Your task to perform on an android device: Search for hotels in London Image 0: 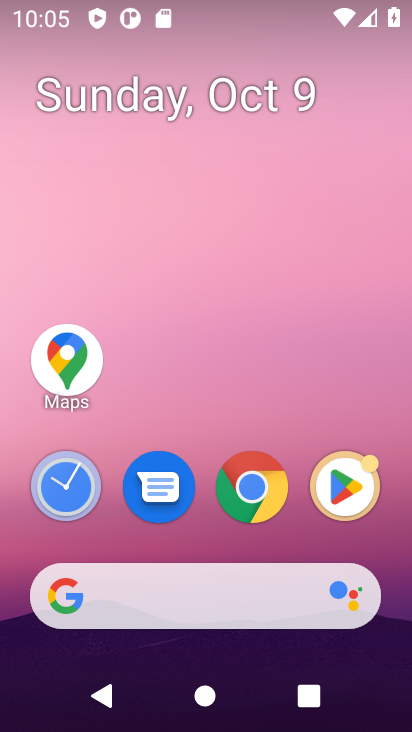
Step 0: drag from (177, 212) to (184, 103)
Your task to perform on an android device: Search for hotels in London Image 1: 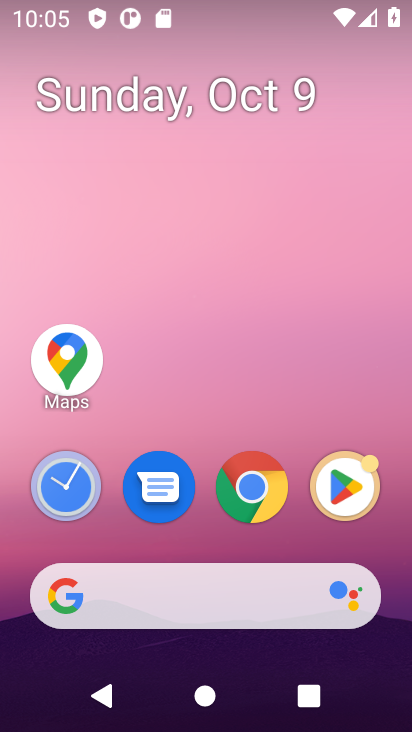
Step 1: drag from (210, 553) to (229, 72)
Your task to perform on an android device: Search for hotels in London Image 2: 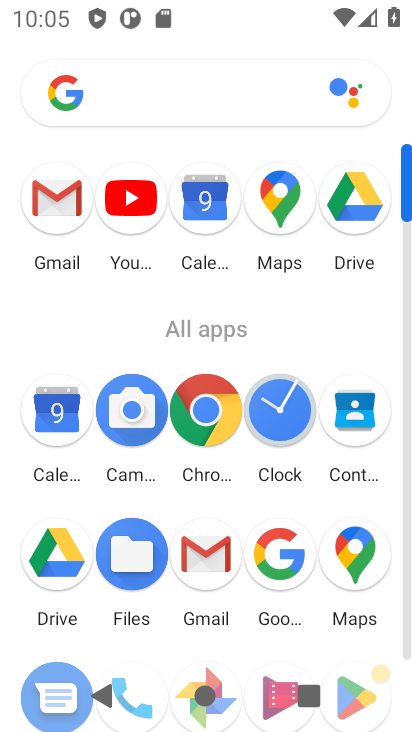
Step 2: click (208, 408)
Your task to perform on an android device: Search for hotels in London Image 3: 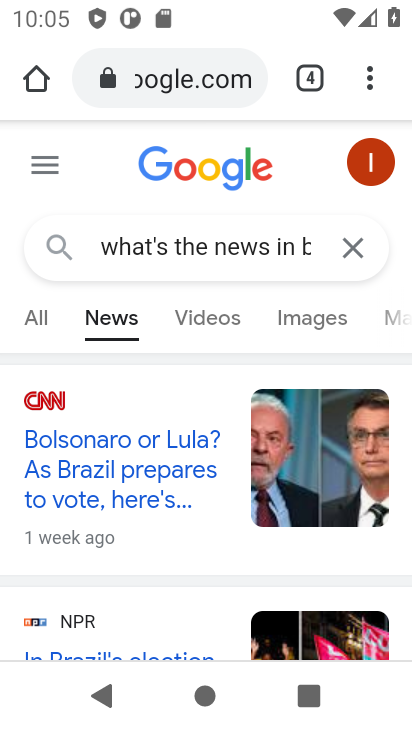
Step 3: click (350, 245)
Your task to perform on an android device: Search for hotels in London Image 4: 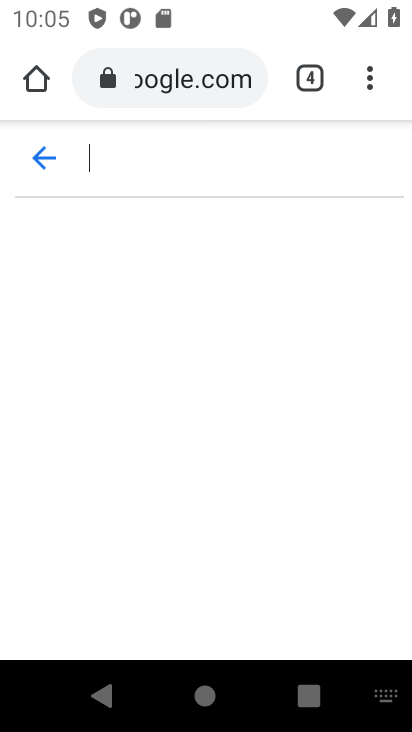
Step 4: type "hotels in London"
Your task to perform on an android device: Search for hotels in London Image 5: 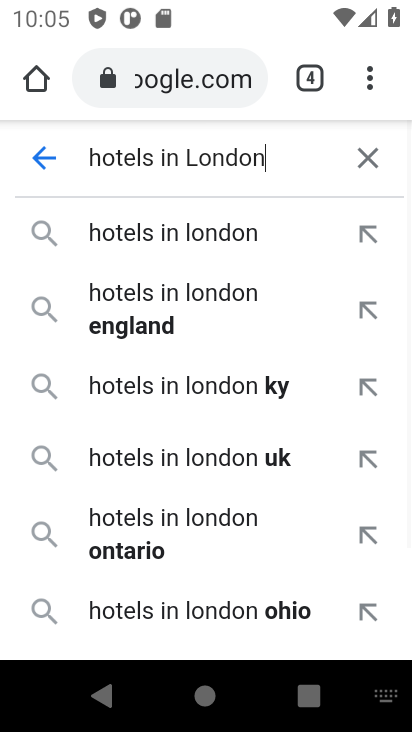
Step 5: type ""
Your task to perform on an android device: Search for hotels in London Image 6: 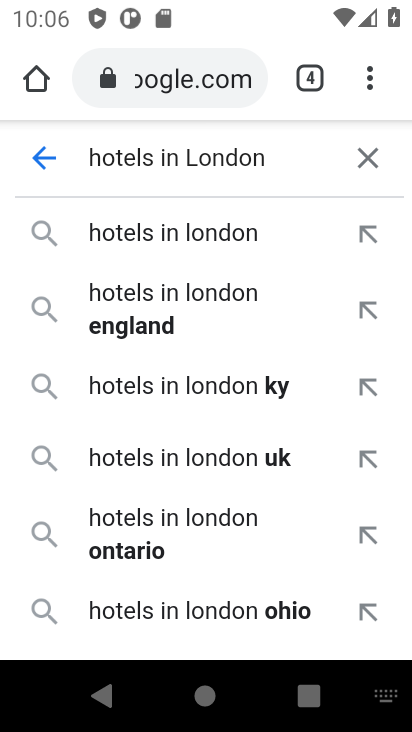
Step 6: click (151, 234)
Your task to perform on an android device: Search for hotels in London Image 7: 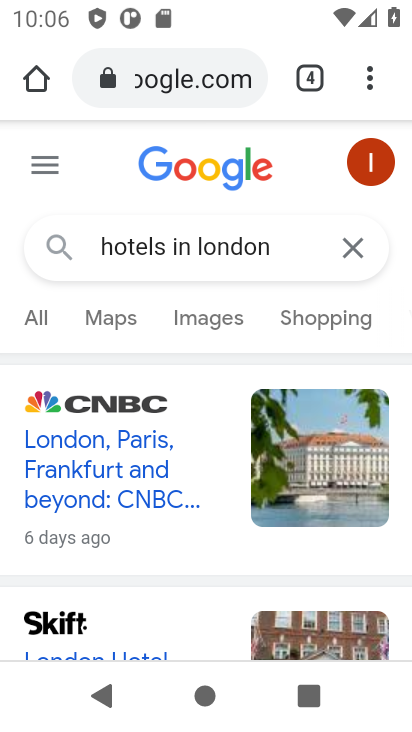
Step 7: drag from (183, 573) to (157, 402)
Your task to perform on an android device: Search for hotels in London Image 8: 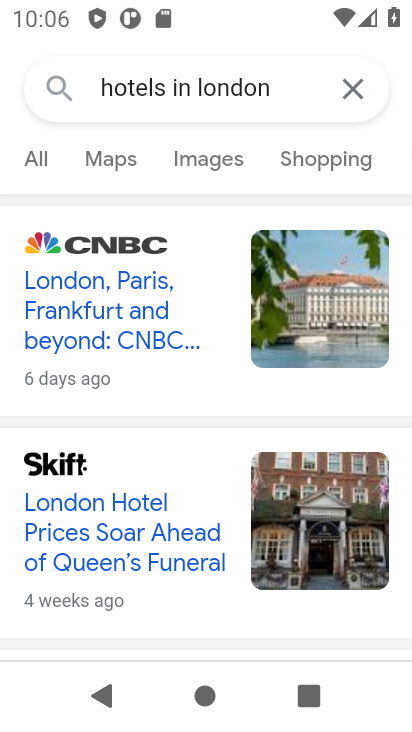
Step 8: click (36, 156)
Your task to perform on an android device: Search for hotels in London Image 9: 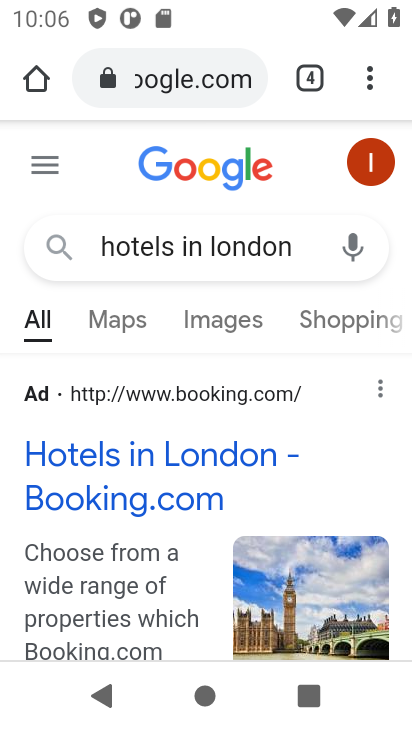
Step 9: drag from (246, 577) to (223, 388)
Your task to perform on an android device: Search for hotels in London Image 10: 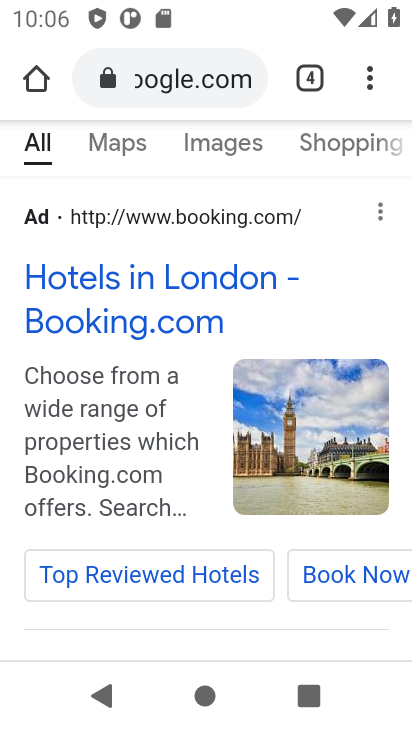
Step 10: click (157, 320)
Your task to perform on an android device: Search for hotels in London Image 11: 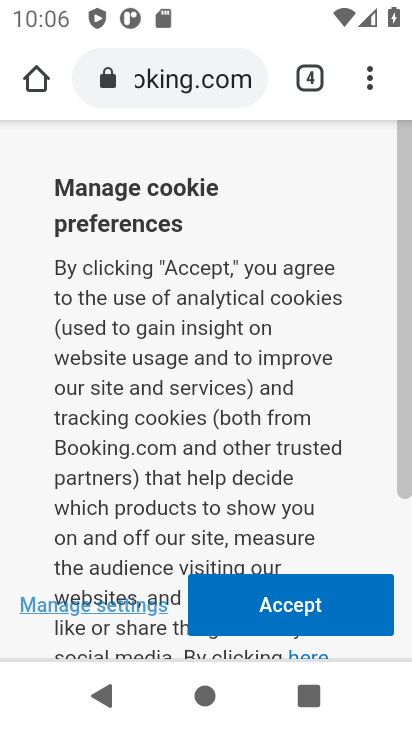
Step 11: click (351, 600)
Your task to perform on an android device: Search for hotels in London Image 12: 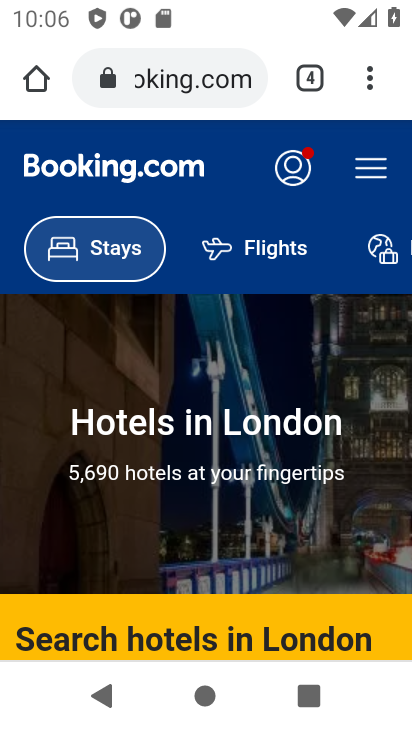
Step 12: task complete